Your task to perform on an android device: Open settings on Google Maps Image 0: 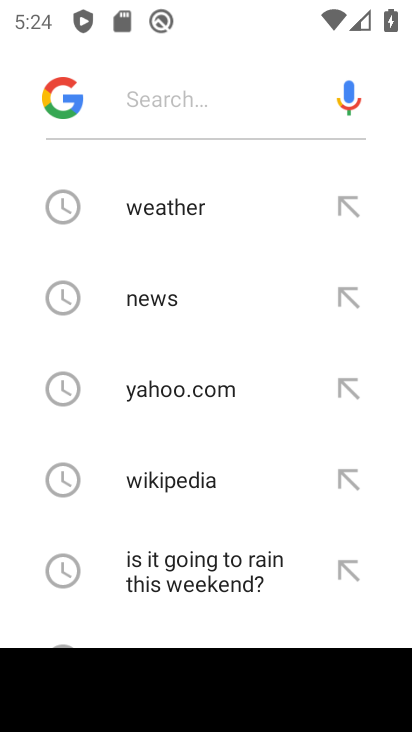
Step 0: press home button
Your task to perform on an android device: Open settings on Google Maps Image 1: 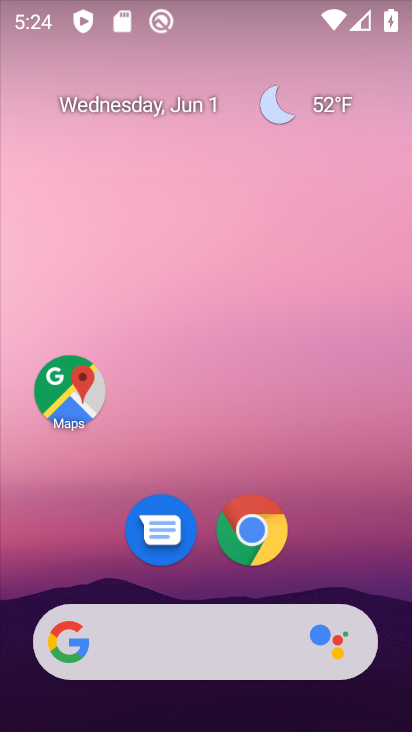
Step 1: drag from (64, 603) to (215, 208)
Your task to perform on an android device: Open settings on Google Maps Image 2: 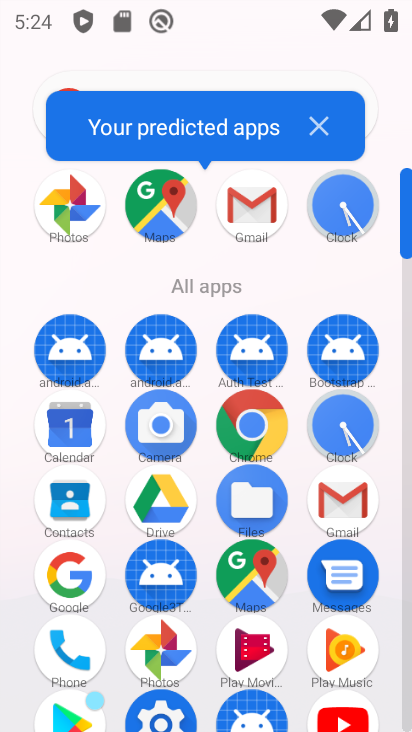
Step 2: click (258, 572)
Your task to perform on an android device: Open settings on Google Maps Image 3: 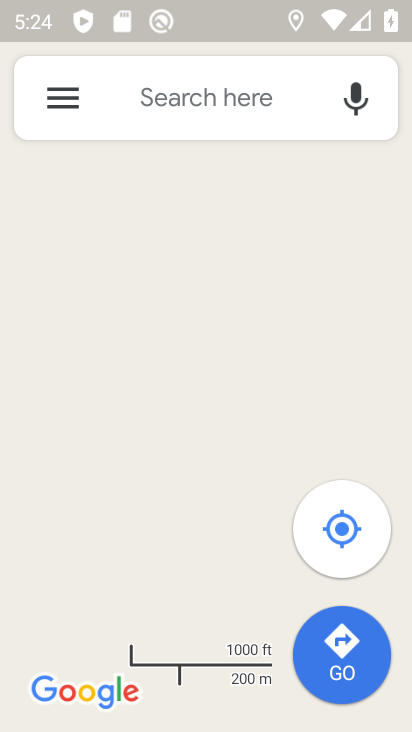
Step 3: click (72, 114)
Your task to perform on an android device: Open settings on Google Maps Image 4: 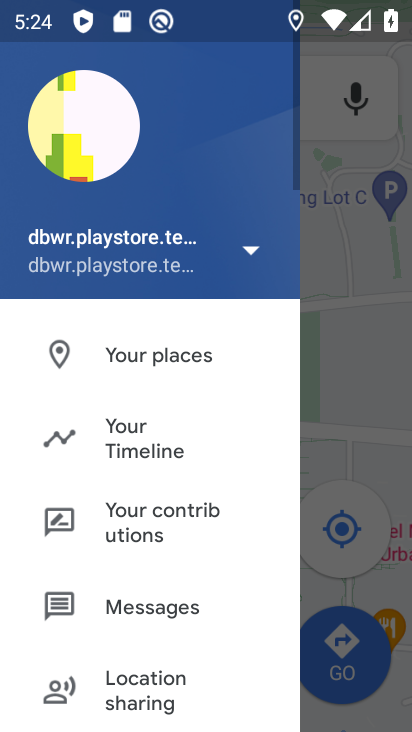
Step 4: drag from (158, 680) to (253, 271)
Your task to perform on an android device: Open settings on Google Maps Image 5: 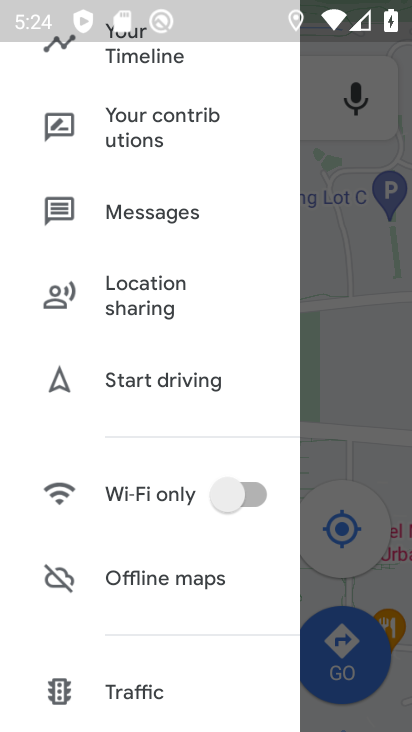
Step 5: drag from (147, 637) to (221, 263)
Your task to perform on an android device: Open settings on Google Maps Image 6: 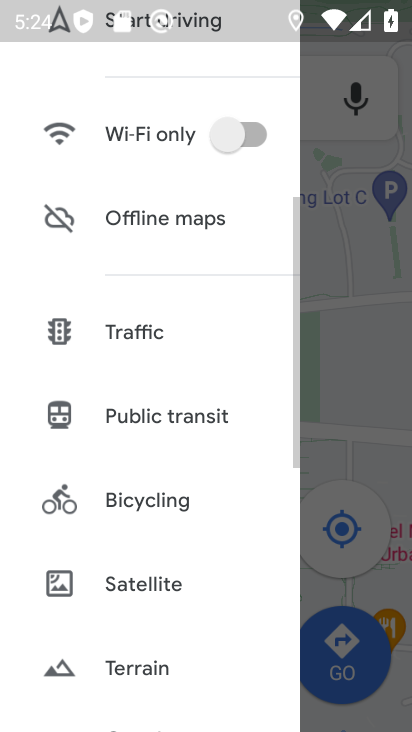
Step 6: drag from (158, 505) to (191, 363)
Your task to perform on an android device: Open settings on Google Maps Image 7: 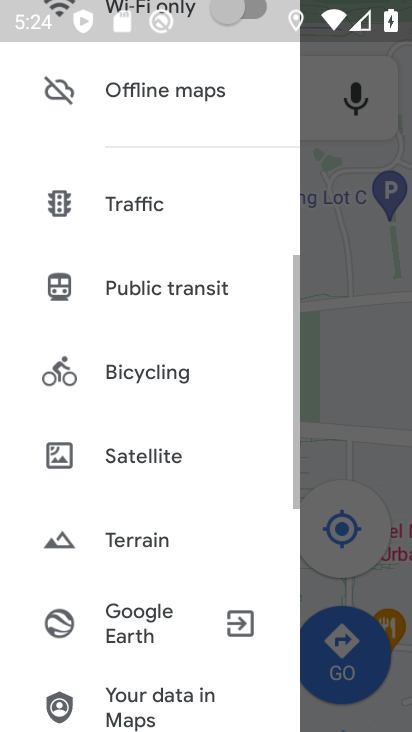
Step 7: drag from (160, 640) to (232, 309)
Your task to perform on an android device: Open settings on Google Maps Image 8: 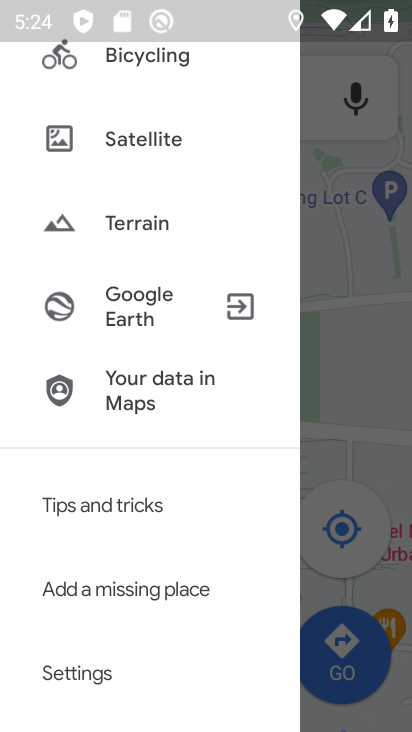
Step 8: click (128, 660)
Your task to perform on an android device: Open settings on Google Maps Image 9: 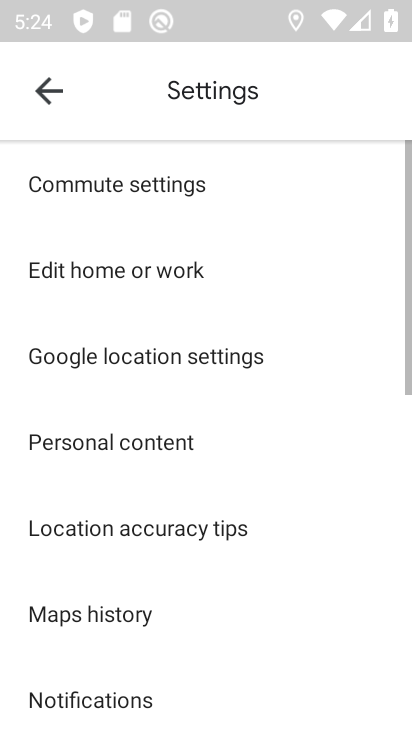
Step 9: task complete